Your task to perform on an android device: Open Google Chrome Image 0: 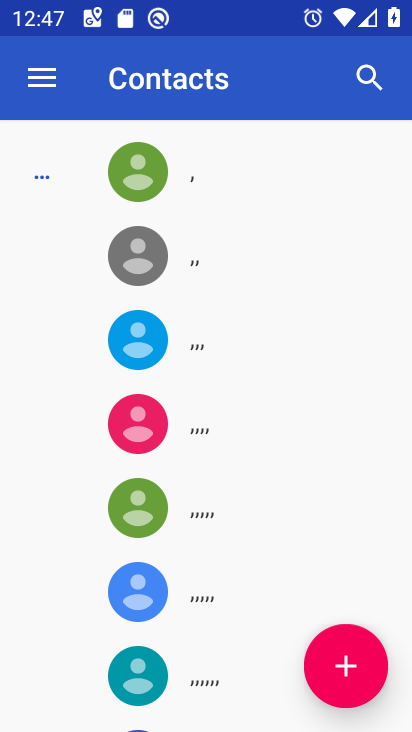
Step 0: press home button
Your task to perform on an android device: Open Google Chrome Image 1: 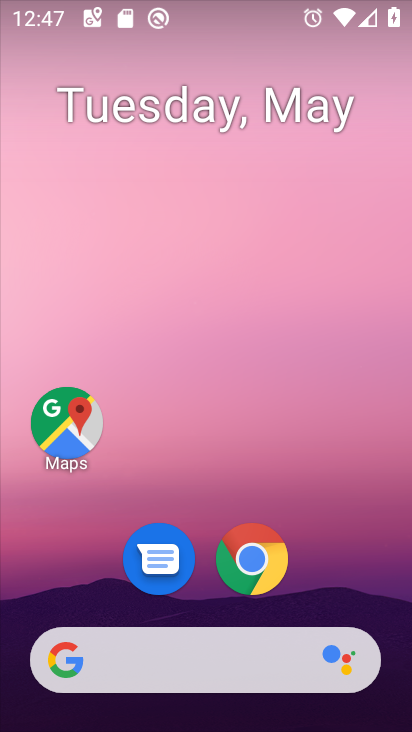
Step 1: click (264, 579)
Your task to perform on an android device: Open Google Chrome Image 2: 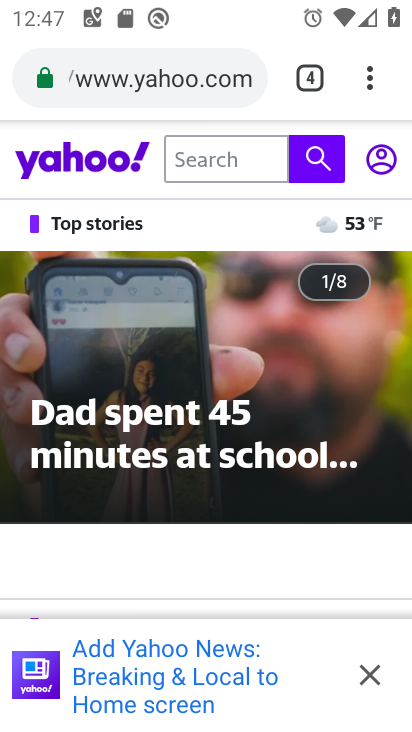
Step 2: task complete